Your task to perform on an android device: turn on bluetooth scan Image 0: 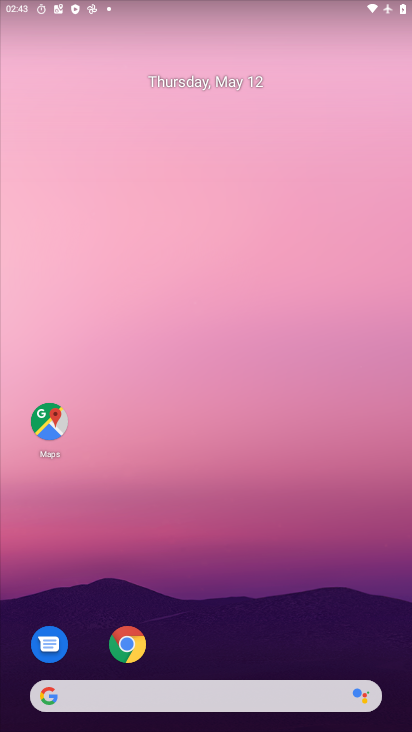
Step 0: drag from (230, 406) to (266, 12)
Your task to perform on an android device: turn on bluetooth scan Image 1: 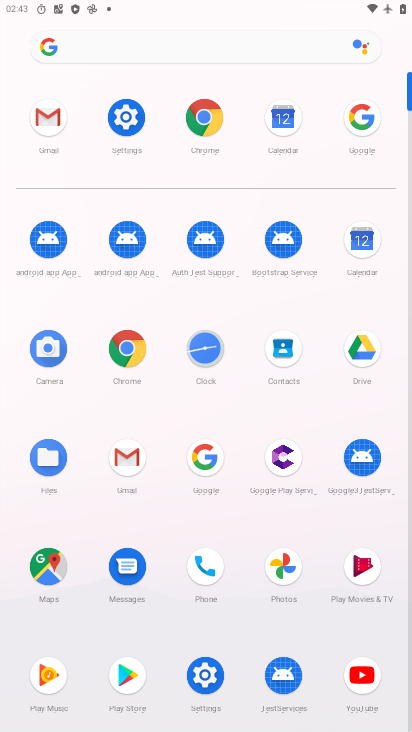
Step 1: click (138, 112)
Your task to perform on an android device: turn on bluetooth scan Image 2: 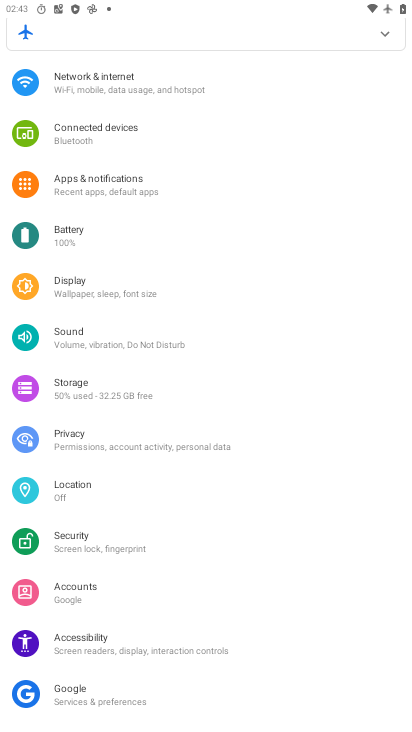
Step 2: click (110, 490)
Your task to perform on an android device: turn on bluetooth scan Image 3: 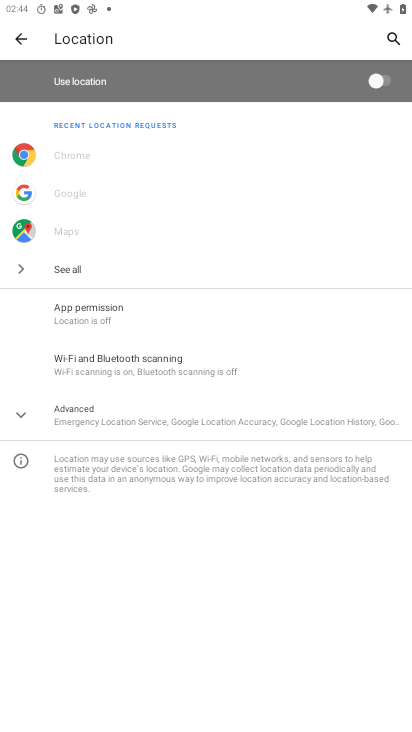
Step 3: click (138, 351)
Your task to perform on an android device: turn on bluetooth scan Image 4: 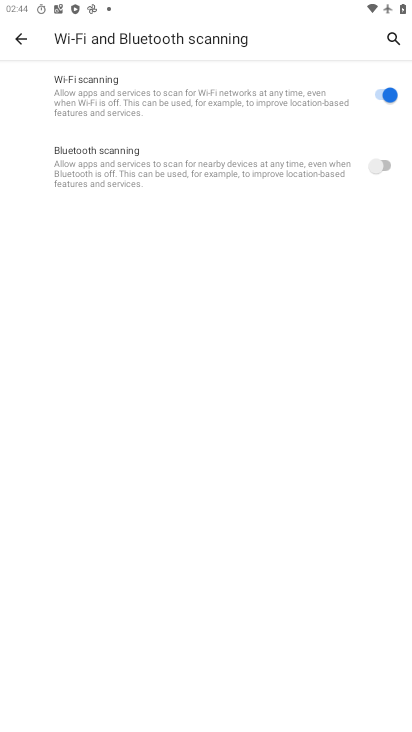
Step 4: click (377, 167)
Your task to perform on an android device: turn on bluetooth scan Image 5: 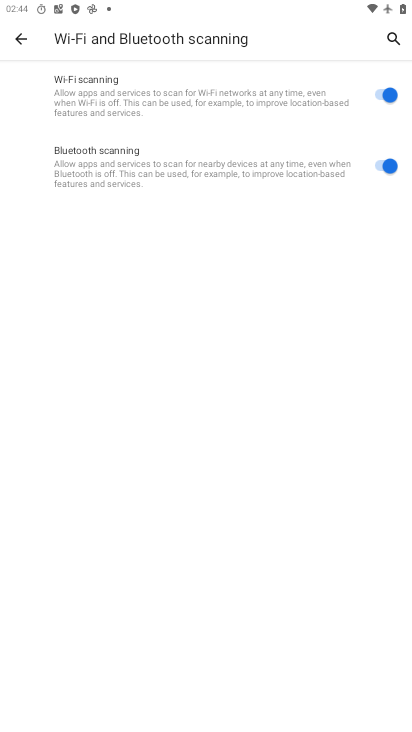
Step 5: task complete